Your task to perform on an android device: Empty the shopping cart on amazon.com. Image 0: 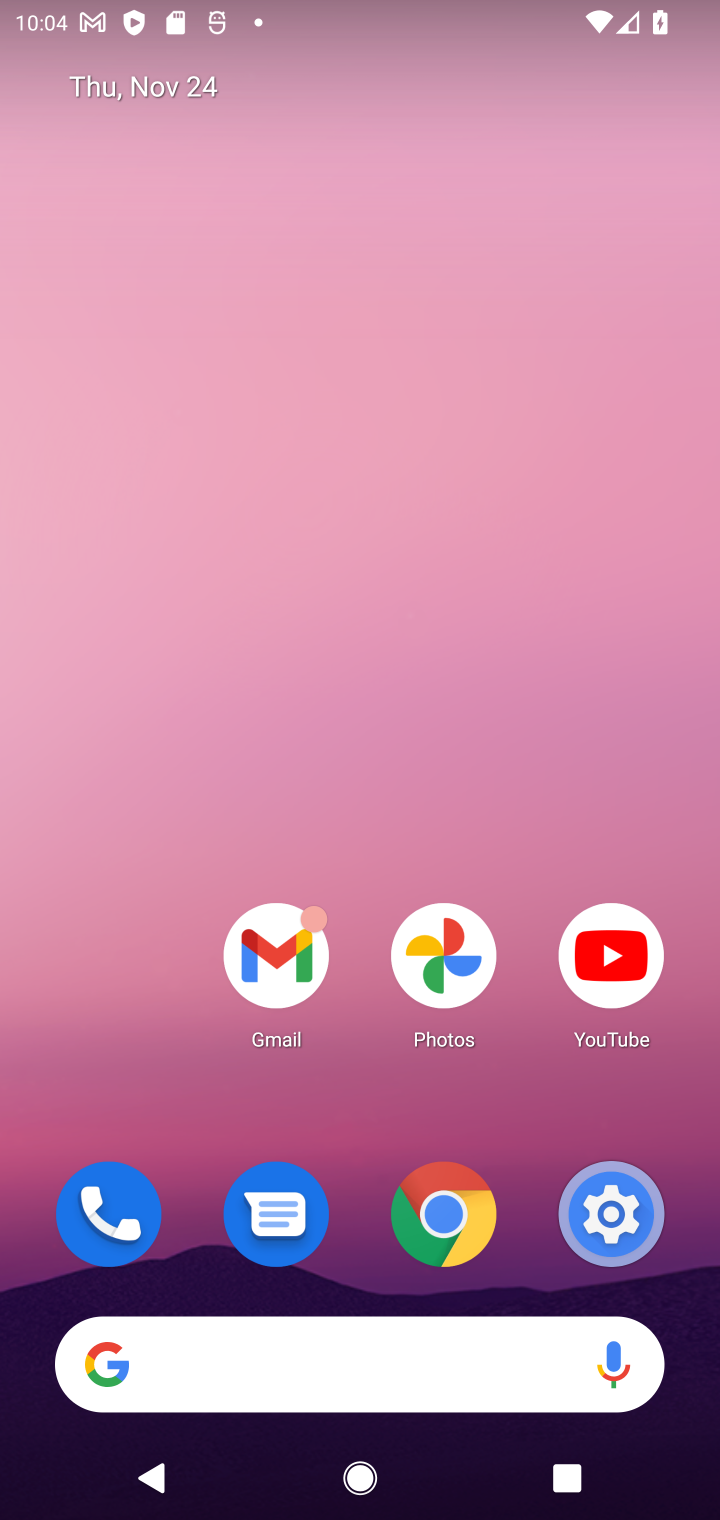
Step 0: click (281, 1347)
Your task to perform on an android device: Empty the shopping cart on amazon.com. Image 1: 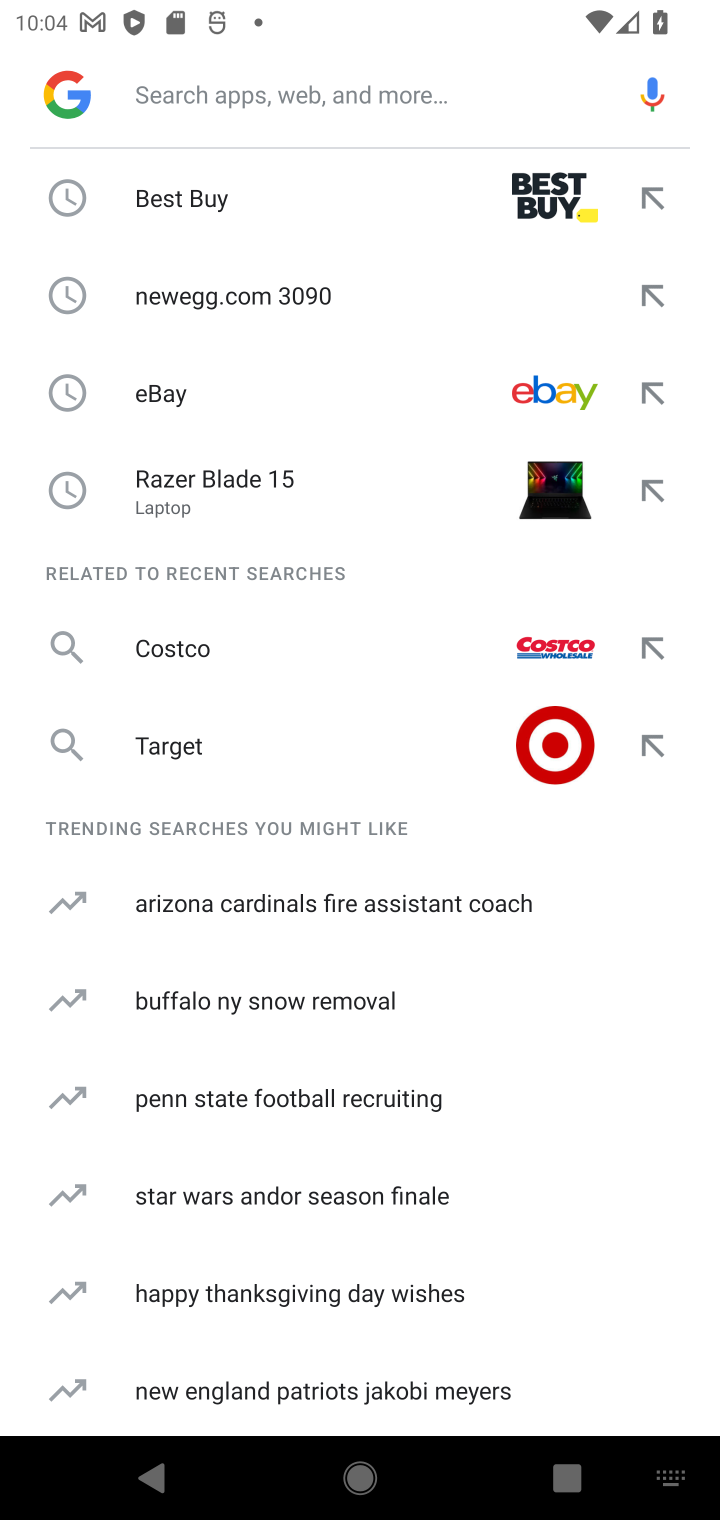
Step 1: type "amazon"
Your task to perform on an android device: Empty the shopping cart on amazon.com. Image 2: 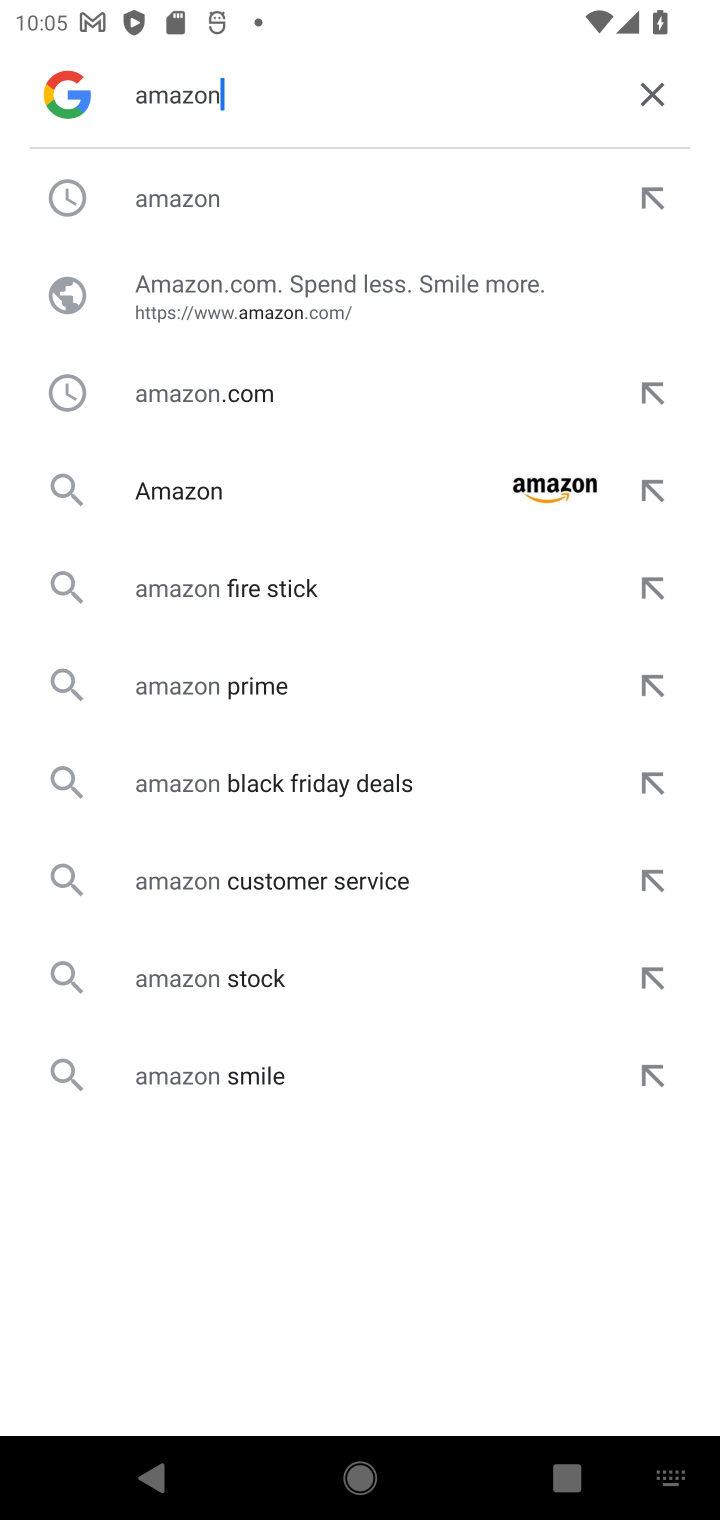
Step 2: click (414, 490)
Your task to perform on an android device: Empty the shopping cart on amazon.com. Image 3: 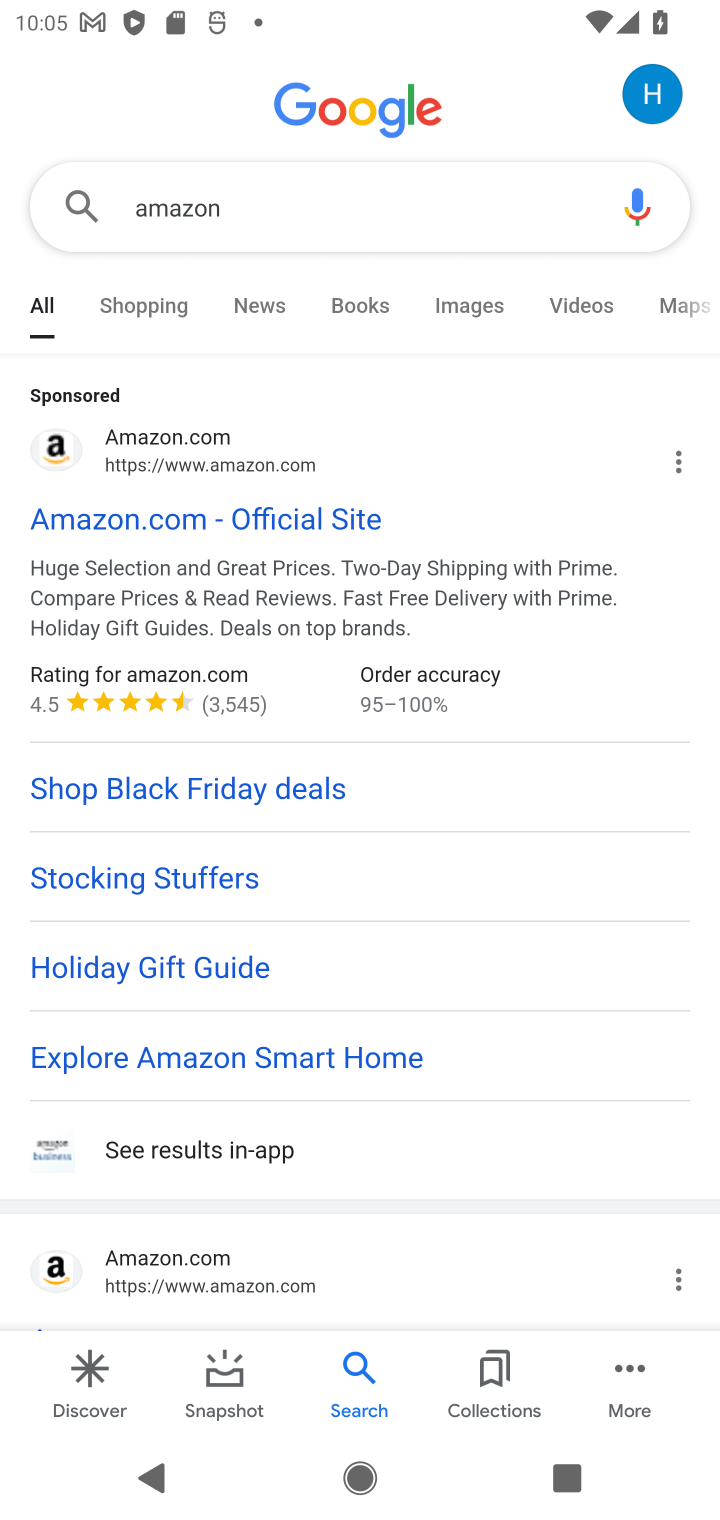
Step 3: click (296, 549)
Your task to perform on an android device: Empty the shopping cart on amazon.com. Image 4: 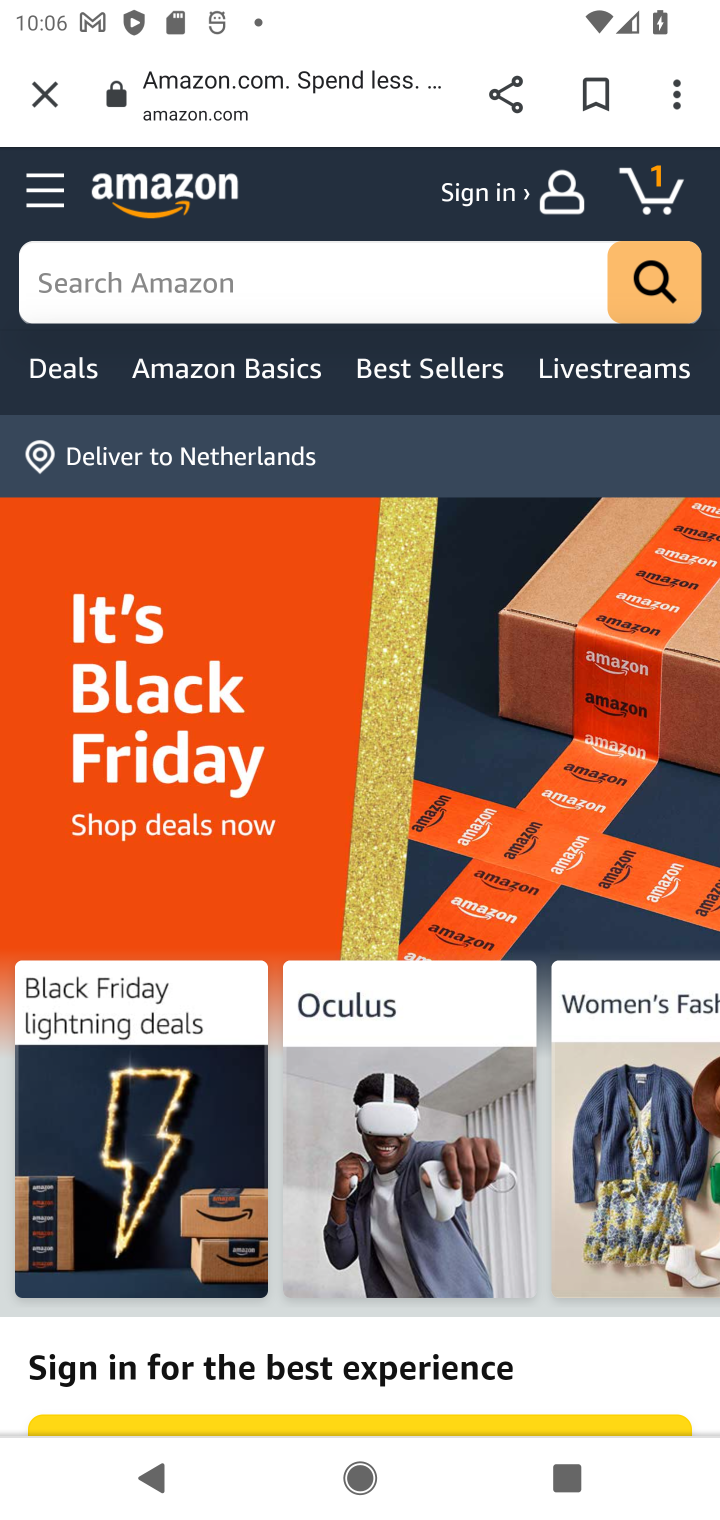
Step 4: task complete